Your task to perform on an android device: Open Google Chrome and click the shortcut for Amazon.com Image 0: 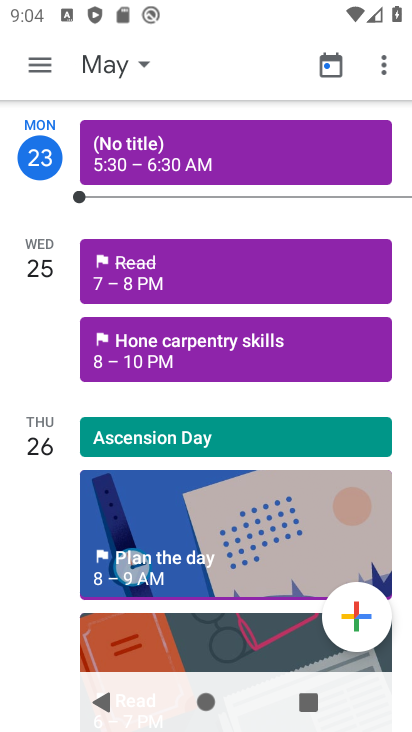
Step 0: press back button
Your task to perform on an android device: Open Google Chrome and click the shortcut for Amazon.com Image 1: 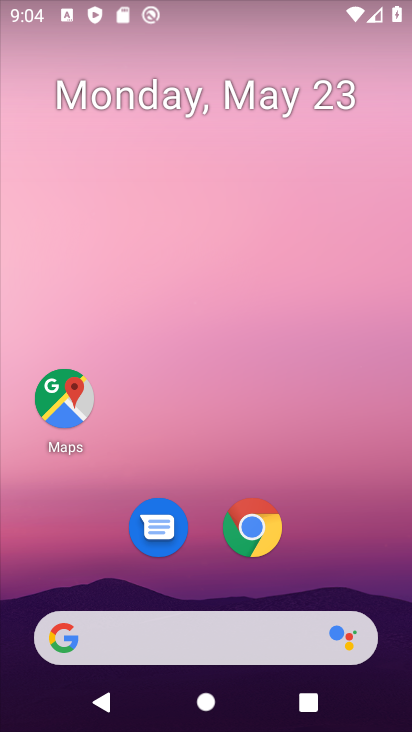
Step 1: drag from (319, 522) to (208, 14)
Your task to perform on an android device: Open Google Chrome and click the shortcut for Amazon.com Image 2: 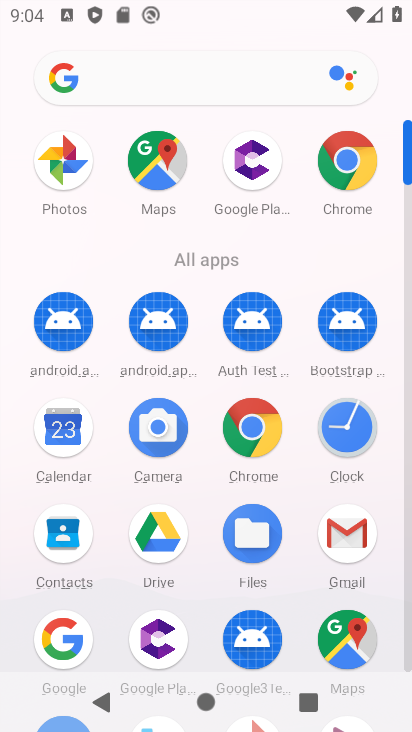
Step 2: drag from (9, 516) to (19, 214)
Your task to perform on an android device: Open Google Chrome and click the shortcut for Amazon.com Image 3: 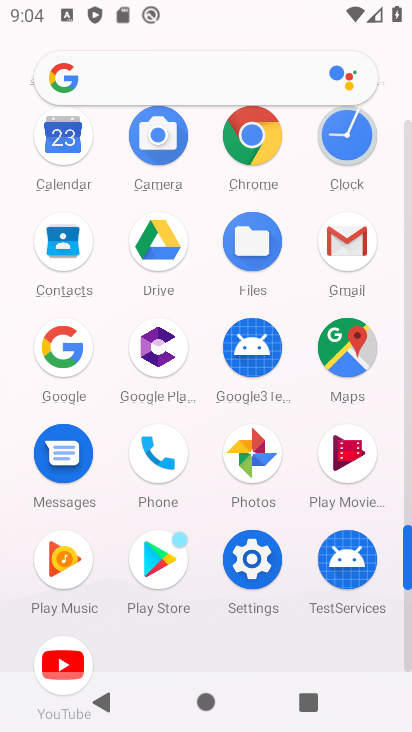
Step 3: click (246, 130)
Your task to perform on an android device: Open Google Chrome and click the shortcut for Amazon.com Image 4: 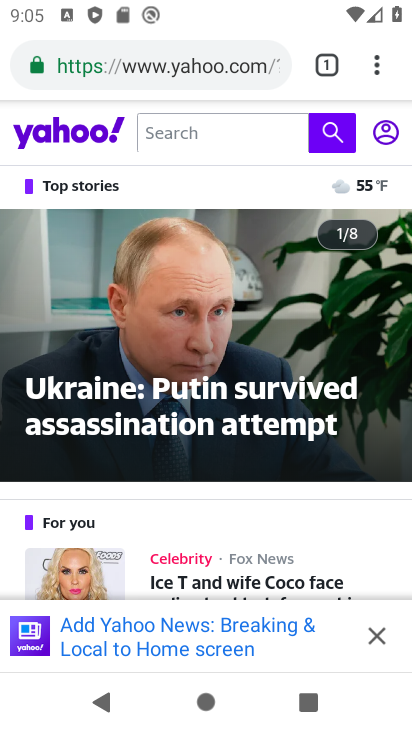
Step 4: click (111, 54)
Your task to perform on an android device: Open Google Chrome and click the shortcut for Amazon.com Image 5: 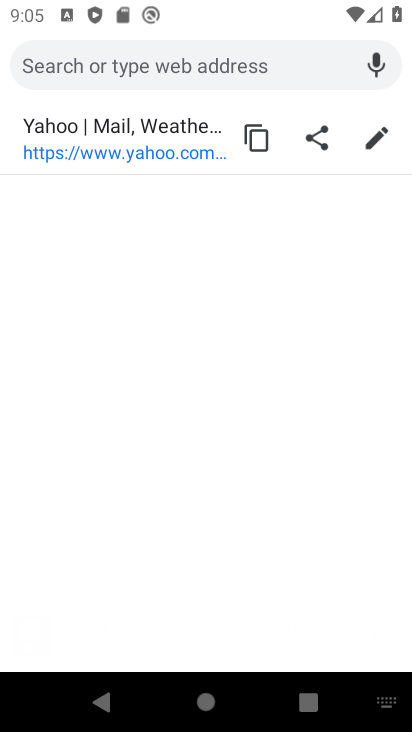
Step 5: type "Amazon.com"
Your task to perform on an android device: Open Google Chrome and click the shortcut for Amazon.com Image 6: 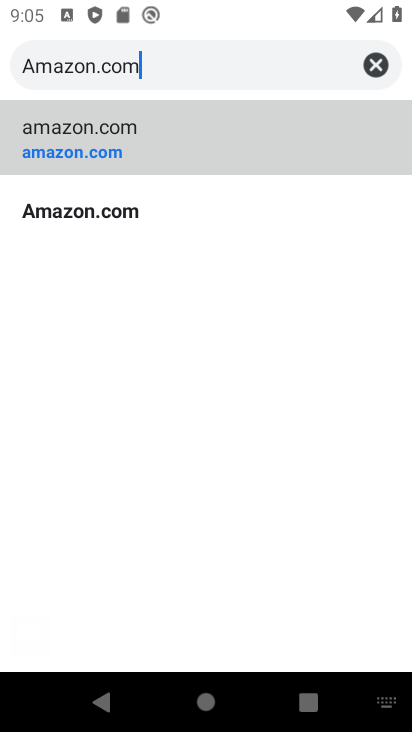
Step 6: type ""
Your task to perform on an android device: Open Google Chrome and click the shortcut for Amazon.com Image 7: 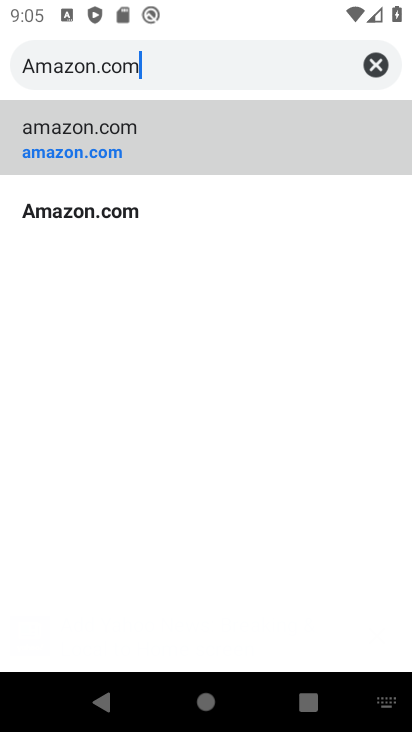
Step 7: click (106, 143)
Your task to perform on an android device: Open Google Chrome and click the shortcut for Amazon.com Image 8: 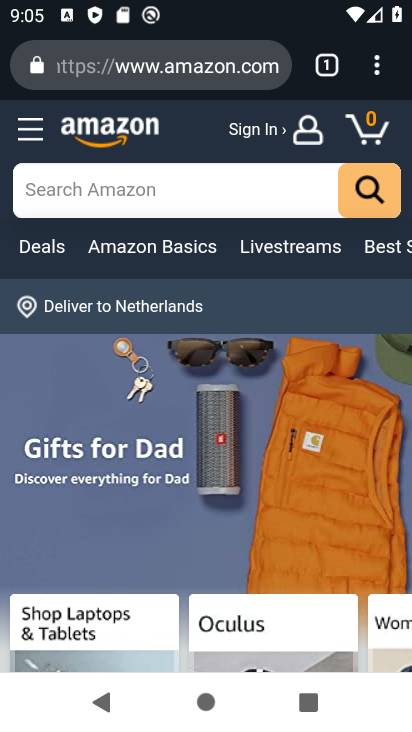
Step 8: drag from (375, 66) to (223, 441)
Your task to perform on an android device: Open Google Chrome and click the shortcut for Amazon.com Image 9: 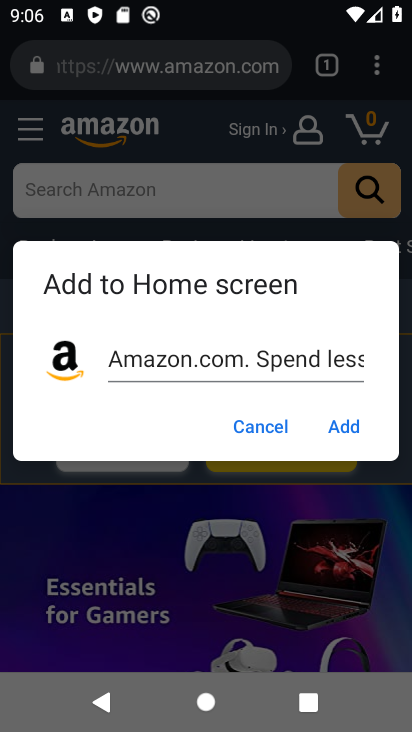
Step 9: click (345, 429)
Your task to perform on an android device: Open Google Chrome and click the shortcut for Amazon.com Image 10: 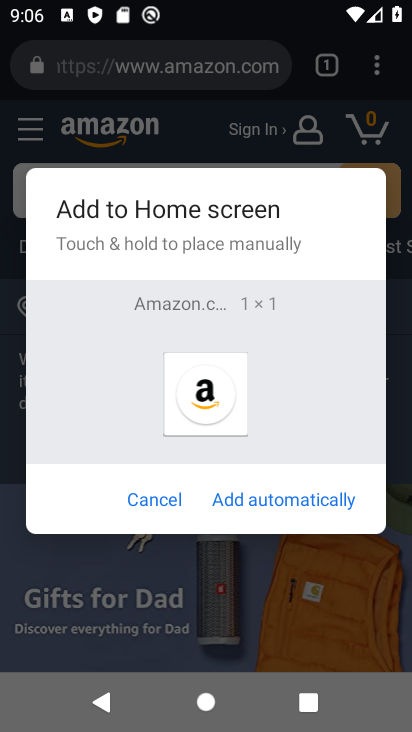
Step 10: click (314, 496)
Your task to perform on an android device: Open Google Chrome and click the shortcut for Amazon.com Image 11: 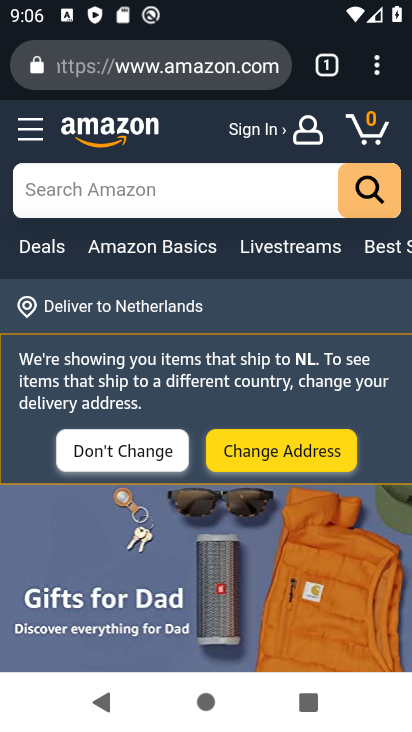
Step 11: task complete